Your task to perform on an android device: turn on wifi Image 0: 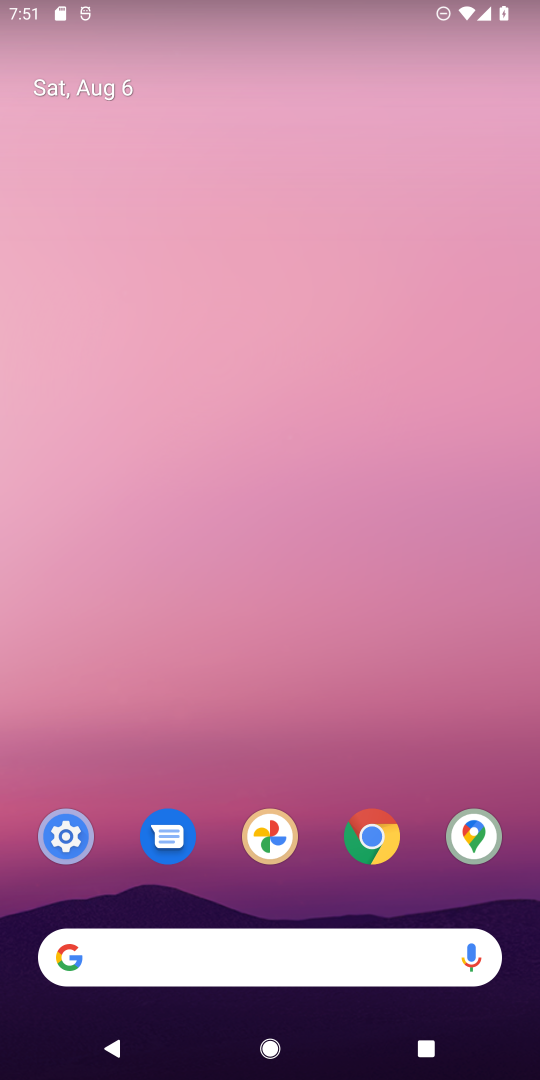
Step 0: drag from (229, 368) to (217, 316)
Your task to perform on an android device: turn on wifi Image 1: 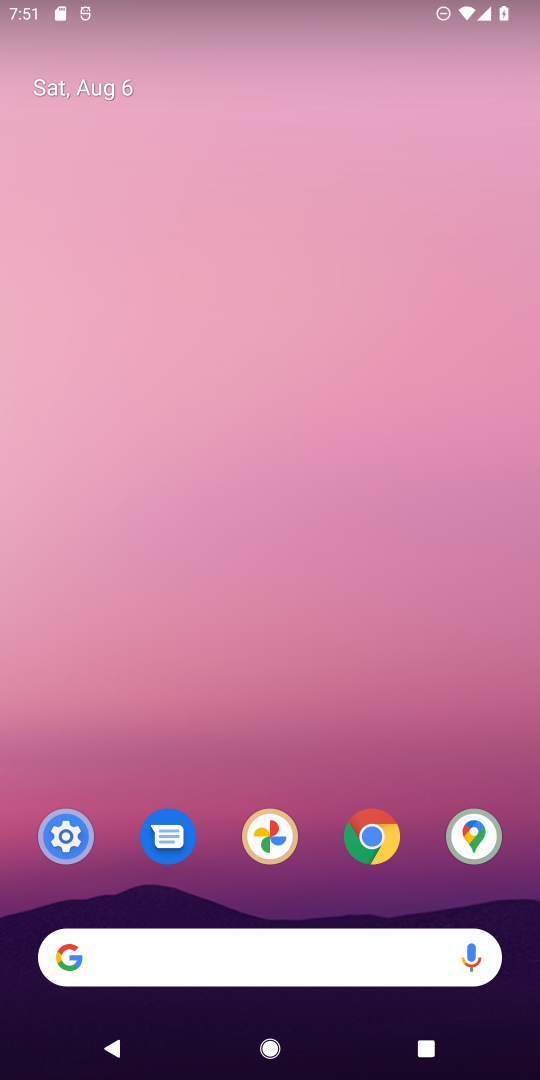
Step 1: drag from (205, 732) to (203, 424)
Your task to perform on an android device: turn on wifi Image 2: 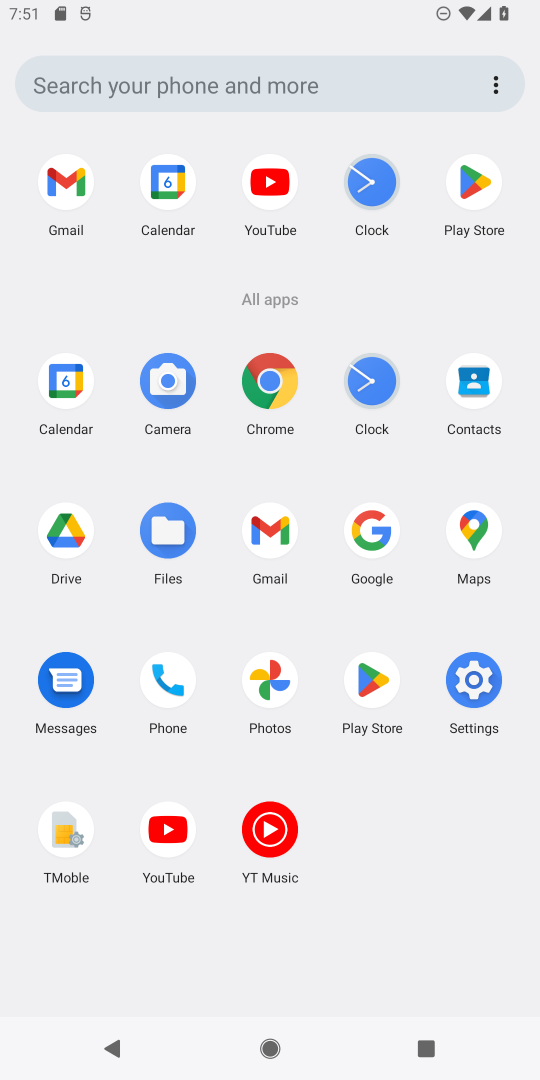
Step 2: click (468, 700)
Your task to perform on an android device: turn on wifi Image 3: 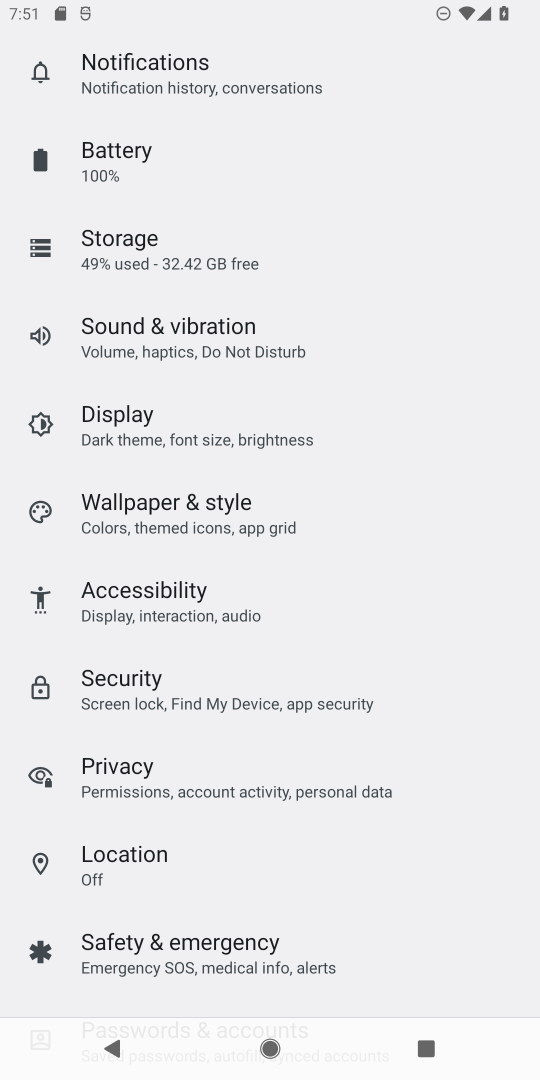
Step 3: drag from (215, 140) to (249, 582)
Your task to perform on an android device: turn on wifi Image 4: 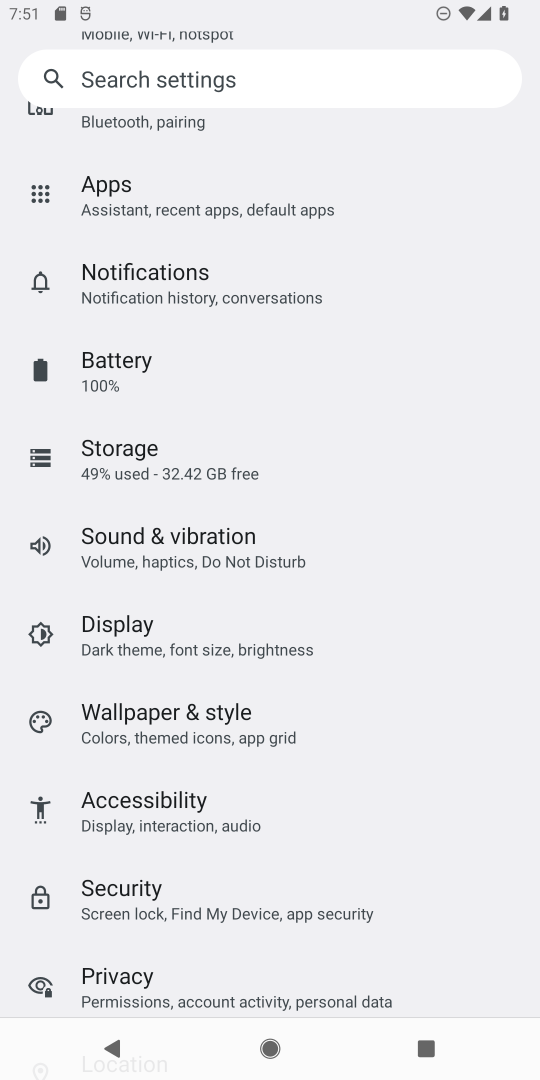
Step 4: drag from (226, 227) to (252, 709)
Your task to perform on an android device: turn on wifi Image 5: 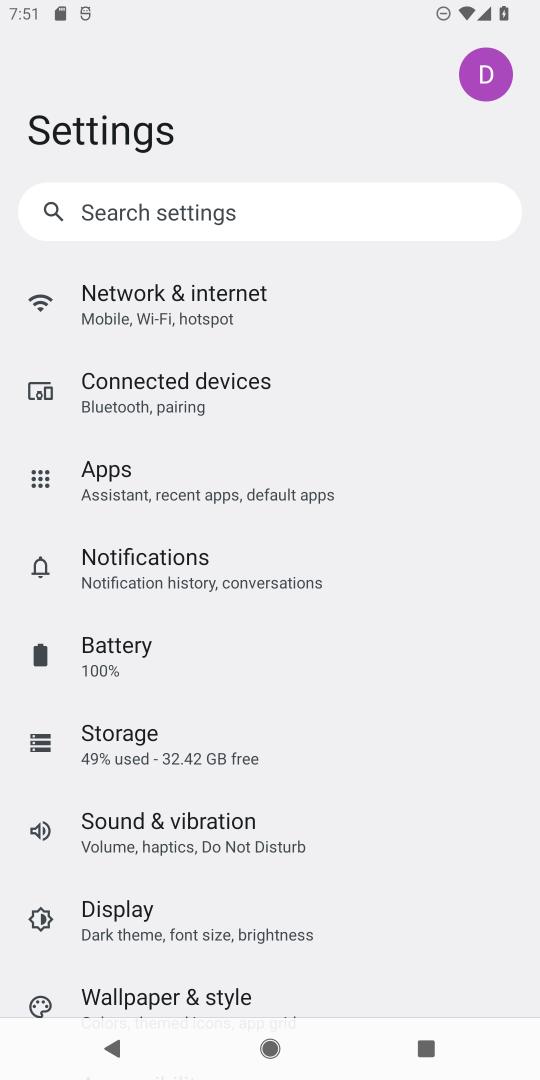
Step 5: click (179, 316)
Your task to perform on an android device: turn on wifi Image 6: 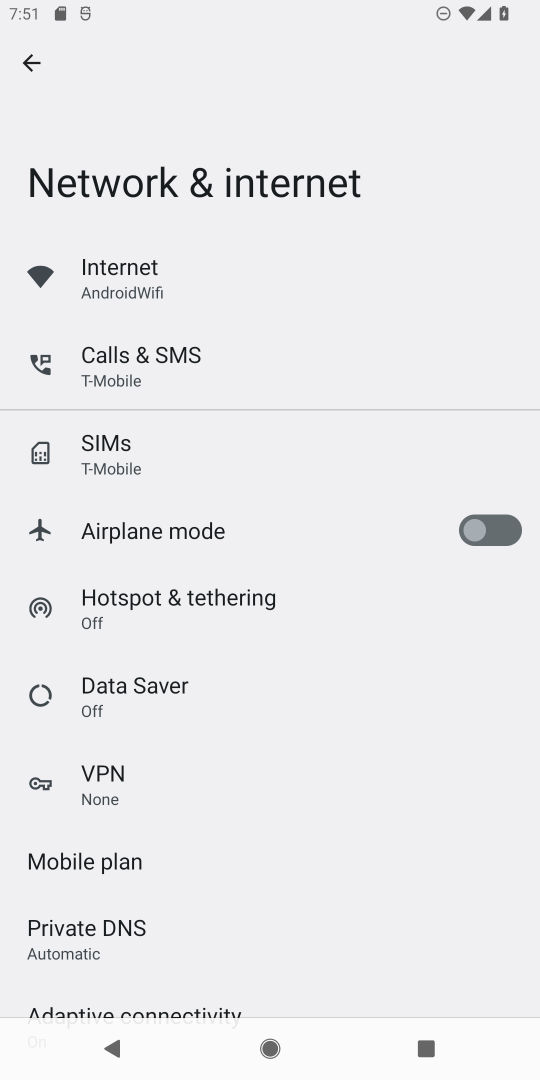
Step 6: click (129, 296)
Your task to perform on an android device: turn on wifi Image 7: 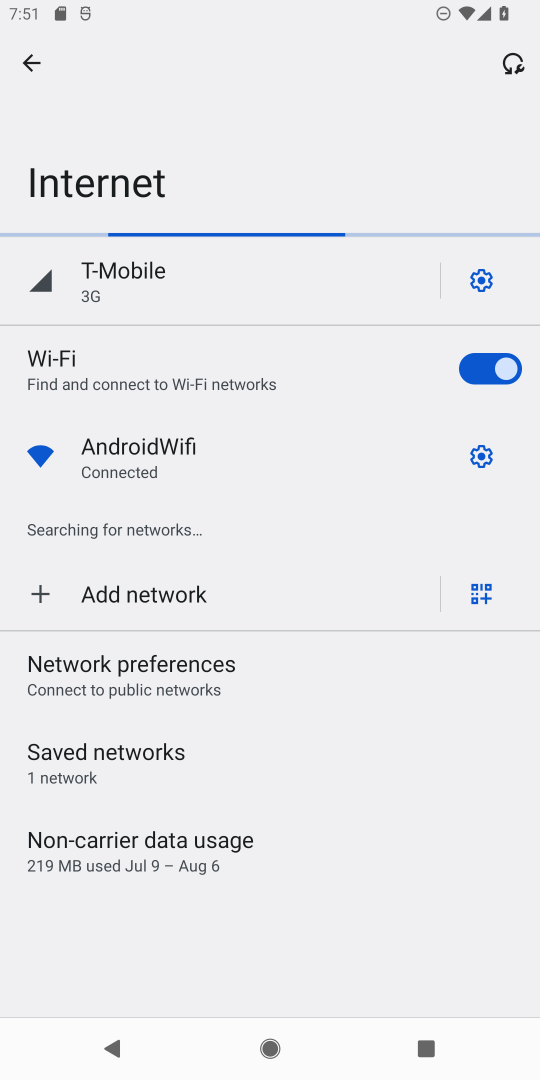
Step 7: task complete